Your task to perform on an android device: Open ESPN.com Image 0: 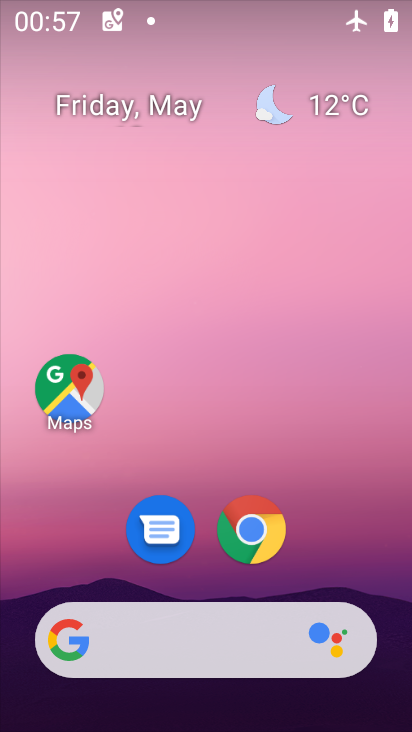
Step 0: drag from (335, 526) to (315, 258)
Your task to perform on an android device: Open ESPN.com Image 1: 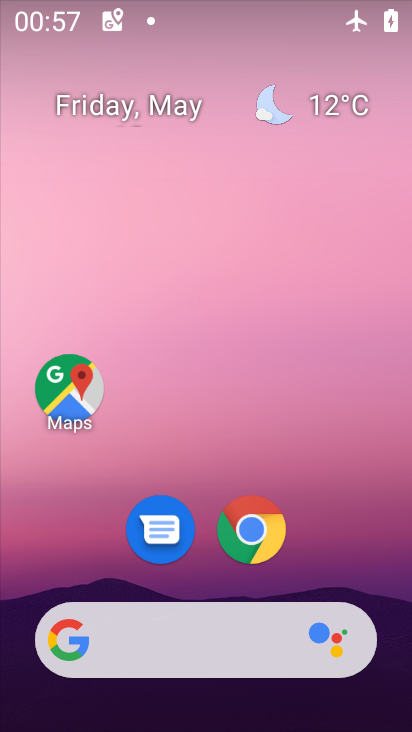
Step 1: click (263, 527)
Your task to perform on an android device: Open ESPN.com Image 2: 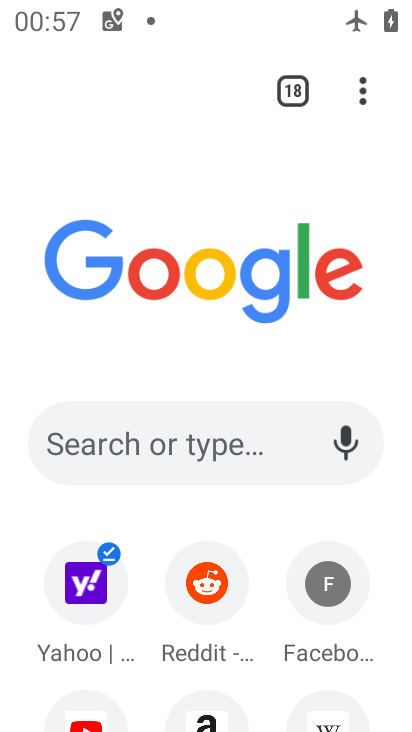
Step 2: click (163, 450)
Your task to perform on an android device: Open ESPN.com Image 3: 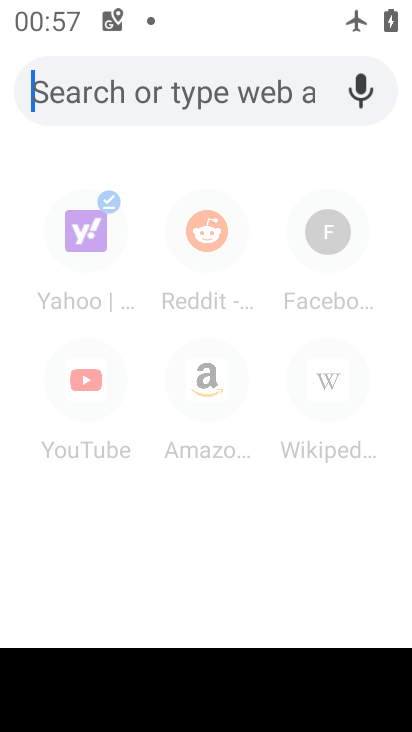
Step 3: click (192, 81)
Your task to perform on an android device: Open ESPN.com Image 4: 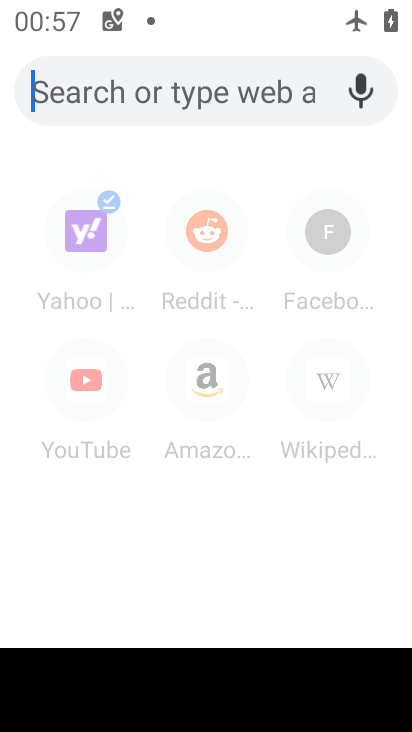
Step 4: type " ESPN.com"
Your task to perform on an android device: Open ESPN.com Image 5: 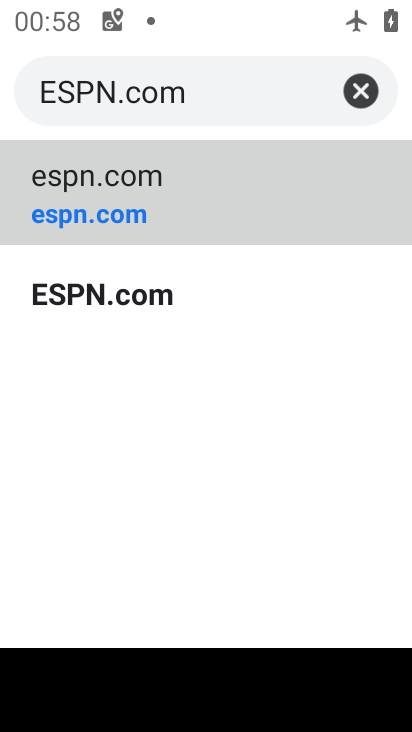
Step 5: click (173, 301)
Your task to perform on an android device: Open ESPN.com Image 6: 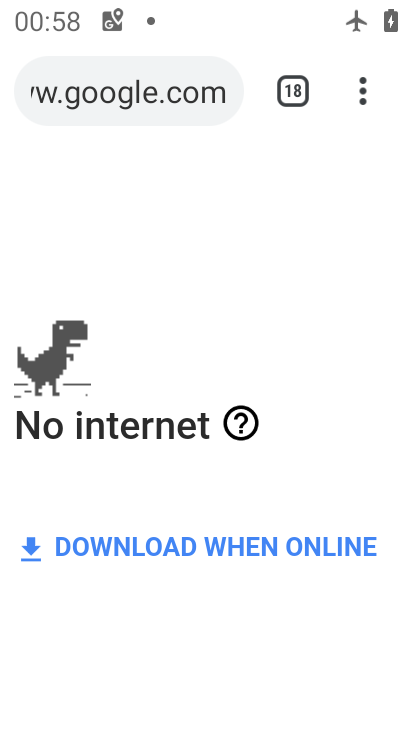
Step 6: task complete